Your task to perform on an android device: open a new tab in the chrome app Image 0: 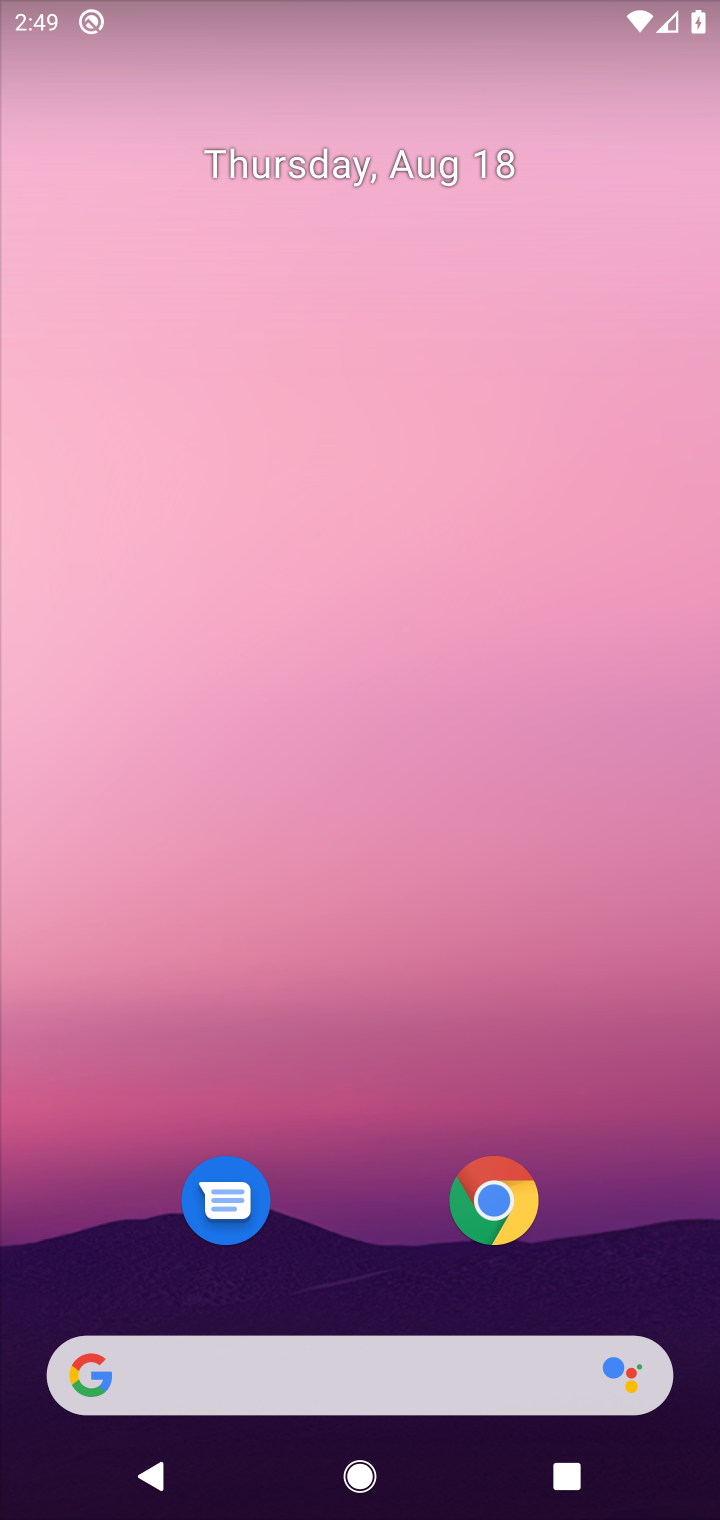
Step 0: press home button
Your task to perform on an android device: open a new tab in the chrome app Image 1: 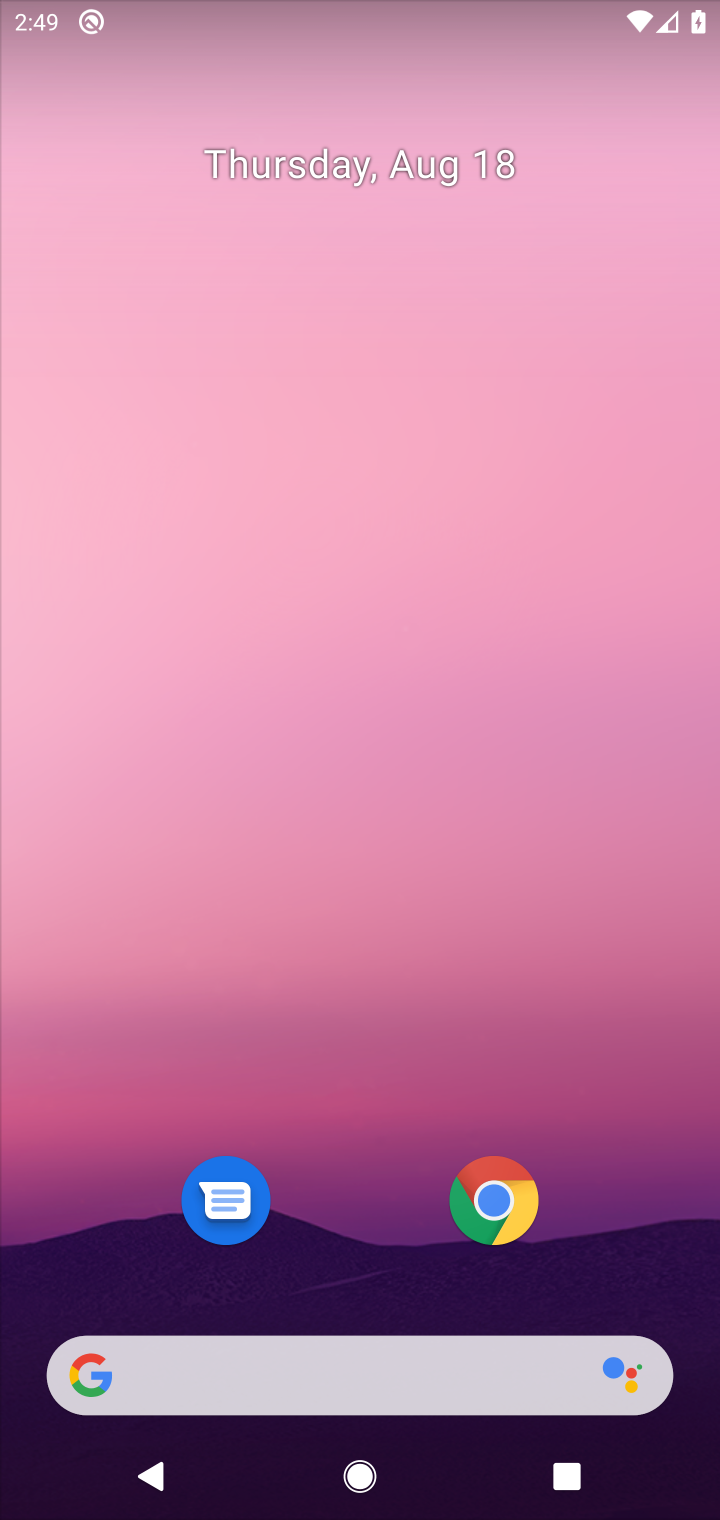
Step 1: drag from (408, 1222) to (440, 736)
Your task to perform on an android device: open a new tab in the chrome app Image 2: 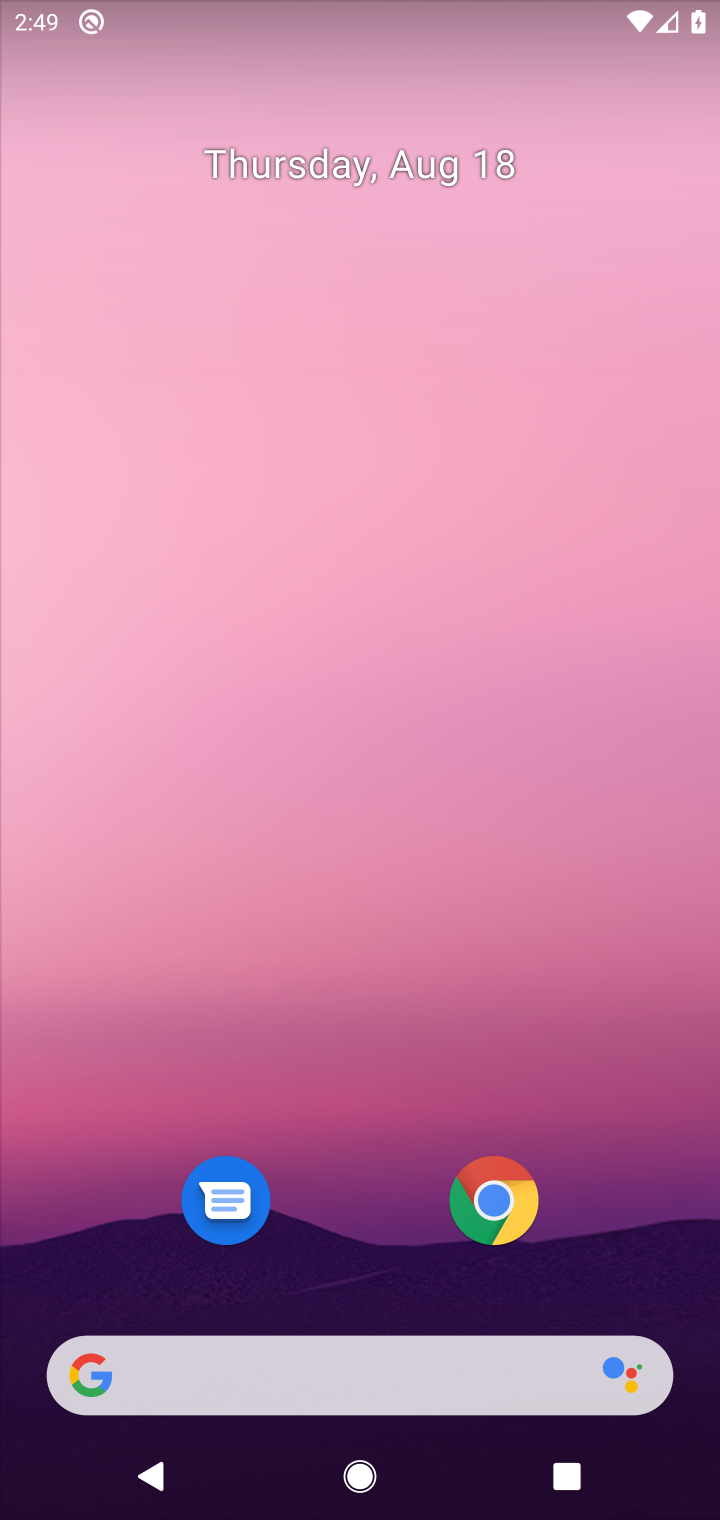
Step 2: drag from (352, 1163) to (468, 101)
Your task to perform on an android device: open a new tab in the chrome app Image 3: 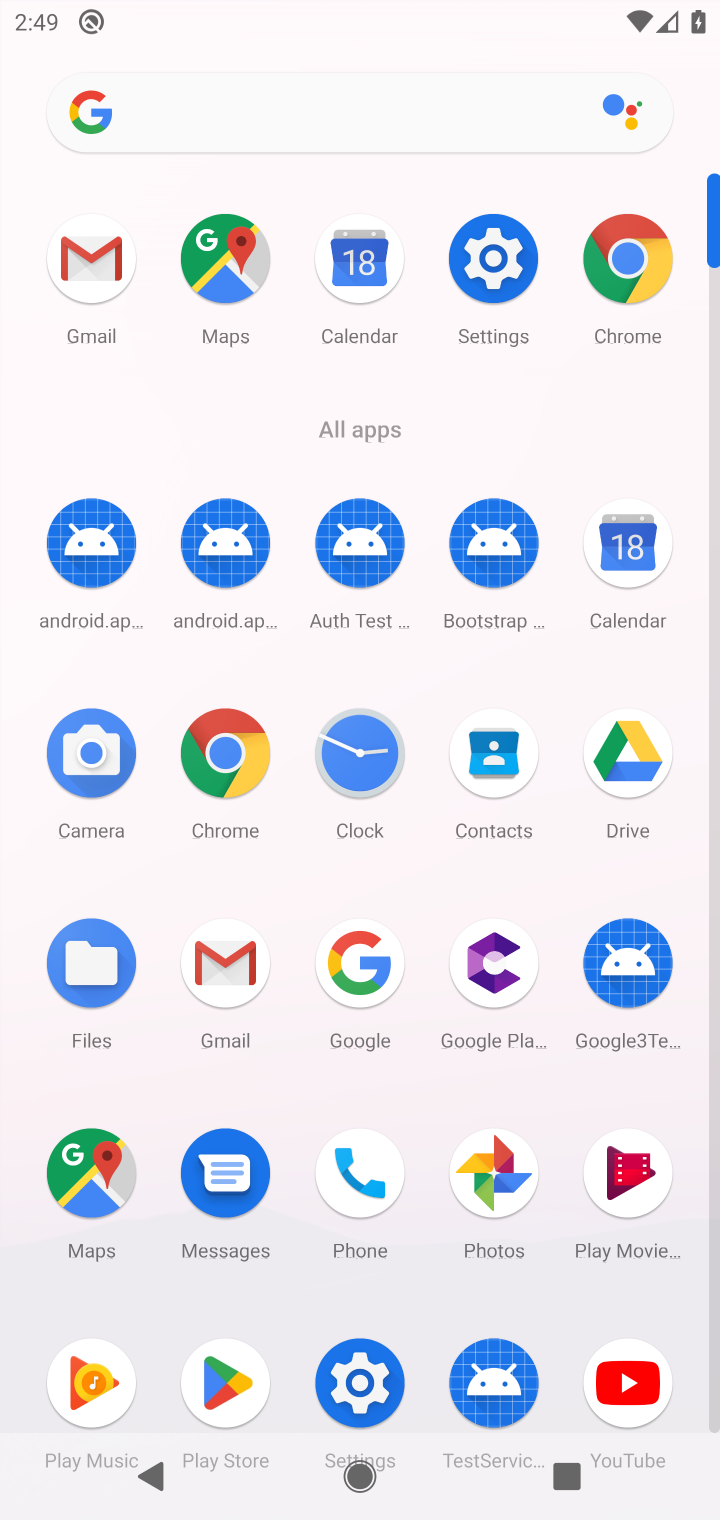
Step 3: click (232, 738)
Your task to perform on an android device: open a new tab in the chrome app Image 4: 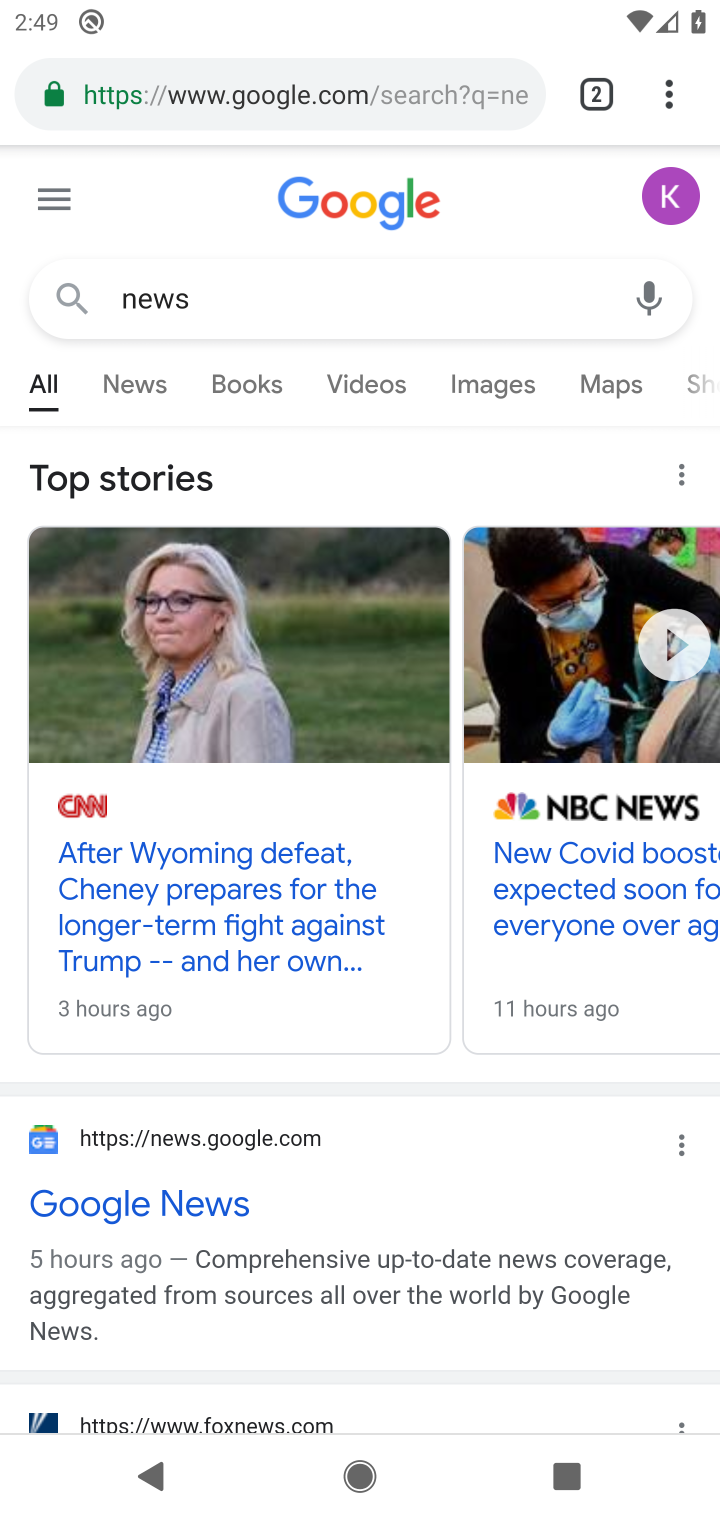
Step 4: task complete